Your task to perform on an android device: check out phone information Image 0: 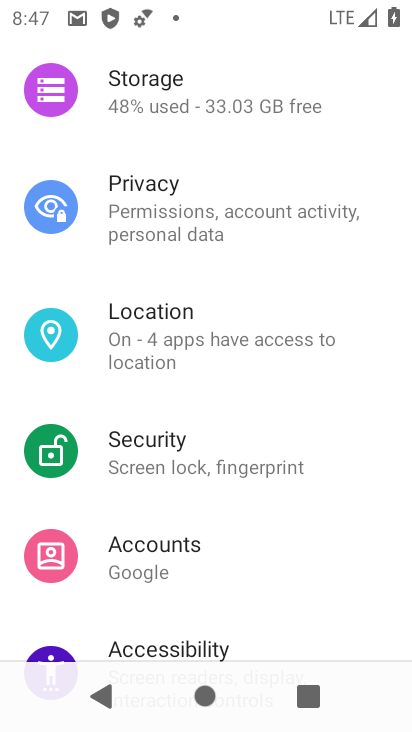
Step 0: press back button
Your task to perform on an android device: check out phone information Image 1: 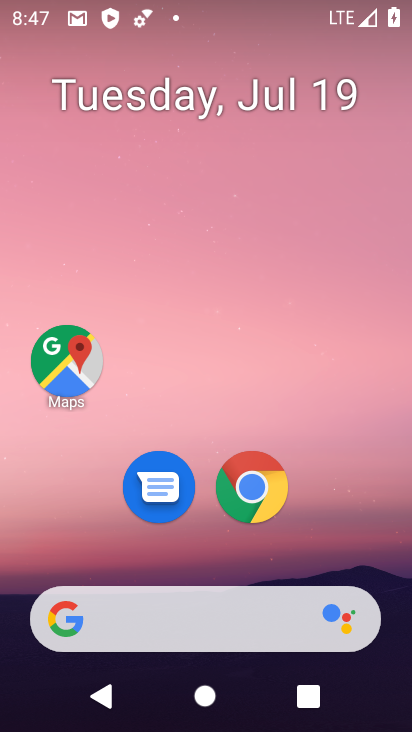
Step 1: drag from (71, 568) to (289, 19)
Your task to perform on an android device: check out phone information Image 2: 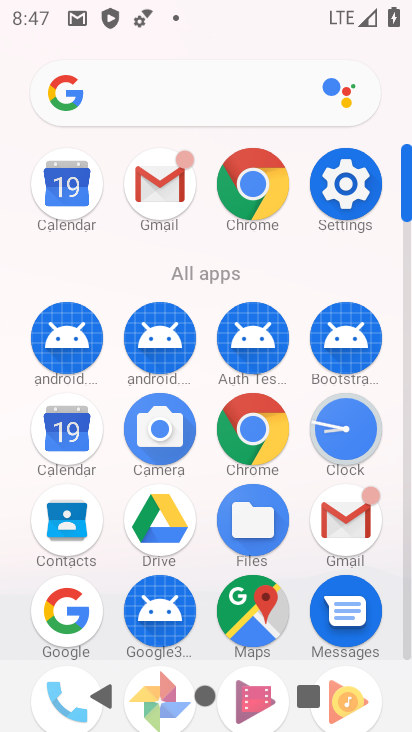
Step 2: click (346, 181)
Your task to perform on an android device: check out phone information Image 3: 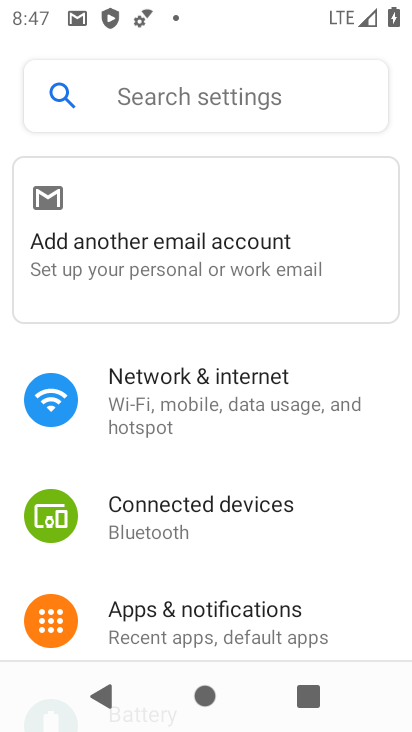
Step 3: drag from (153, 590) to (291, 18)
Your task to perform on an android device: check out phone information Image 4: 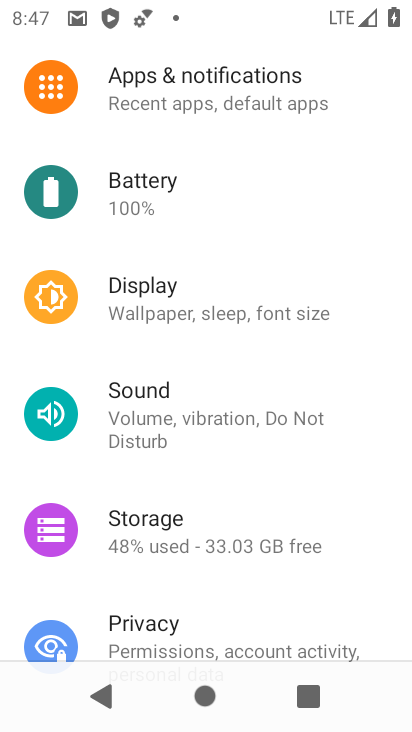
Step 4: drag from (213, 604) to (290, 1)
Your task to perform on an android device: check out phone information Image 5: 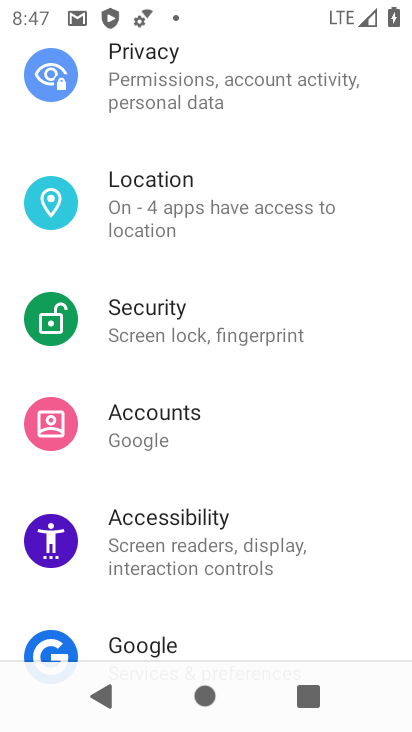
Step 5: drag from (191, 612) to (281, 32)
Your task to perform on an android device: check out phone information Image 6: 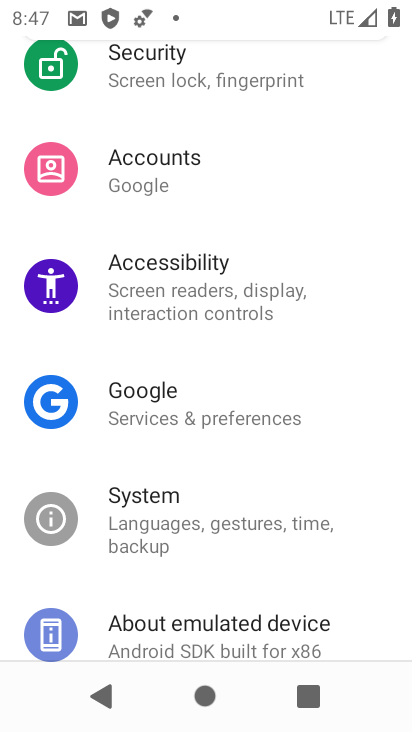
Step 6: click (191, 629)
Your task to perform on an android device: check out phone information Image 7: 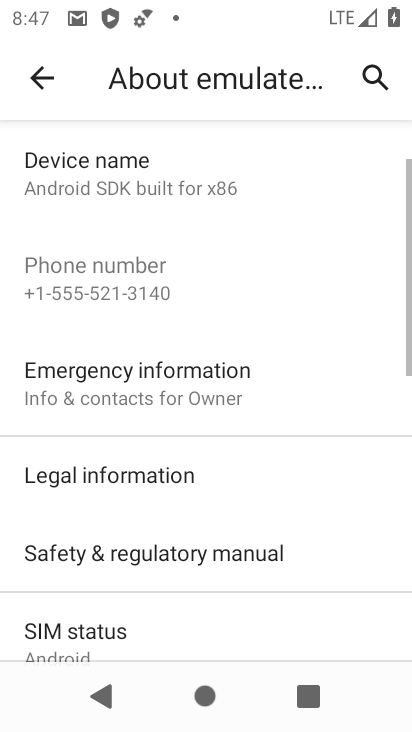
Step 7: task complete